Your task to perform on an android device: turn off location history Image 0: 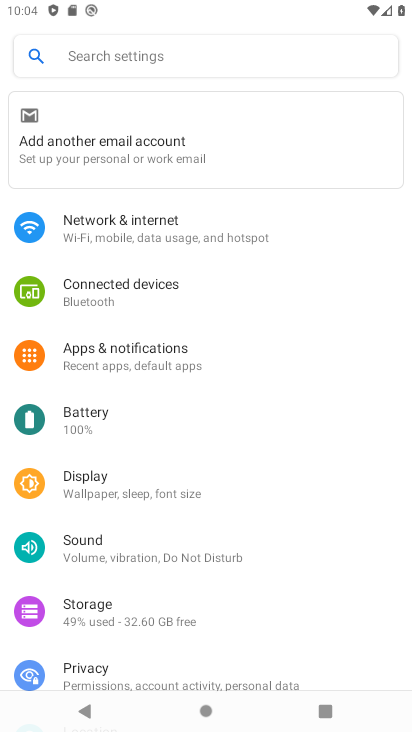
Step 0: drag from (129, 632) to (133, 319)
Your task to perform on an android device: turn off location history Image 1: 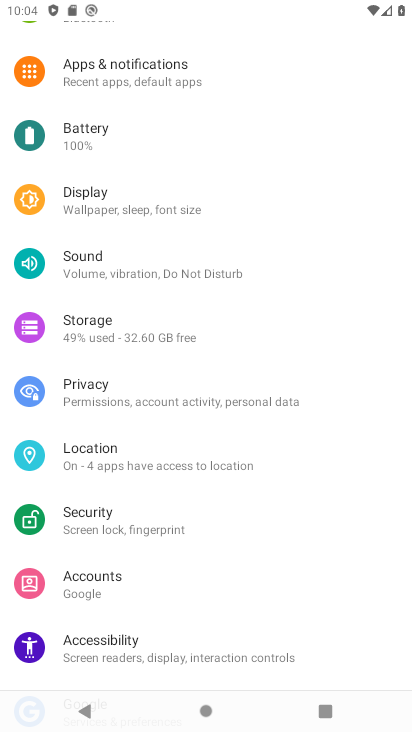
Step 1: click (92, 451)
Your task to perform on an android device: turn off location history Image 2: 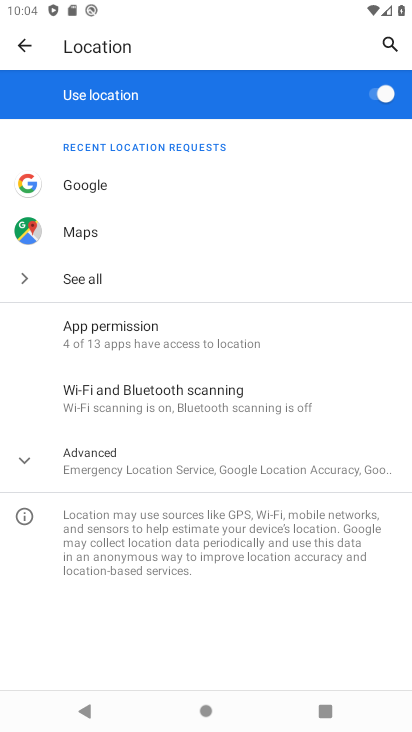
Step 2: click (100, 465)
Your task to perform on an android device: turn off location history Image 3: 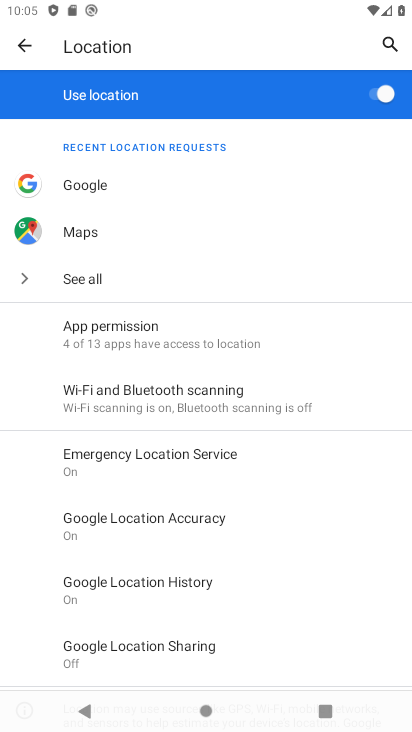
Step 3: click (181, 579)
Your task to perform on an android device: turn off location history Image 4: 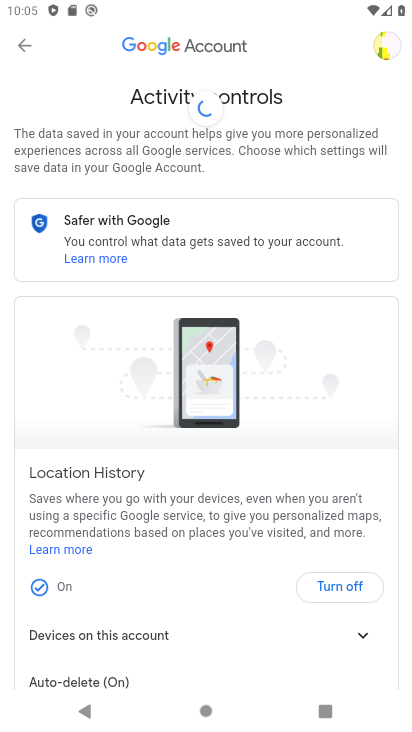
Step 4: click (344, 590)
Your task to perform on an android device: turn off location history Image 5: 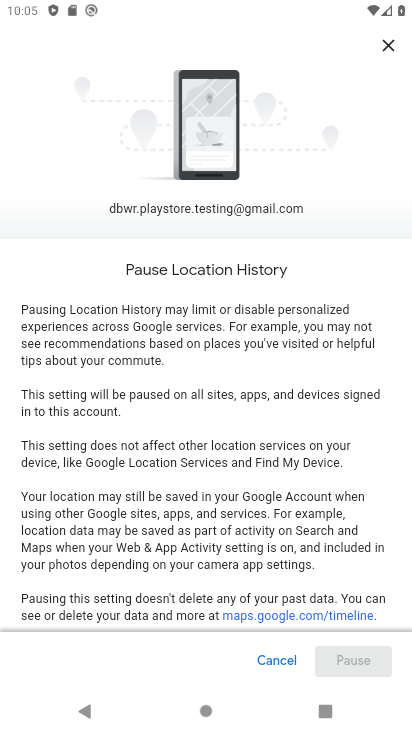
Step 5: drag from (216, 589) to (210, 189)
Your task to perform on an android device: turn off location history Image 6: 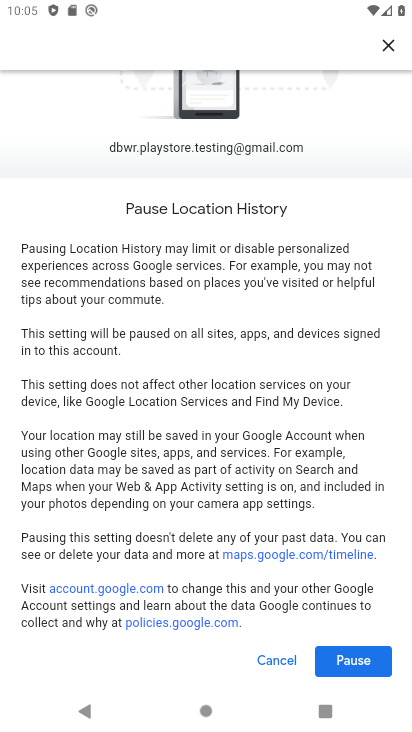
Step 6: click (356, 665)
Your task to perform on an android device: turn off location history Image 7: 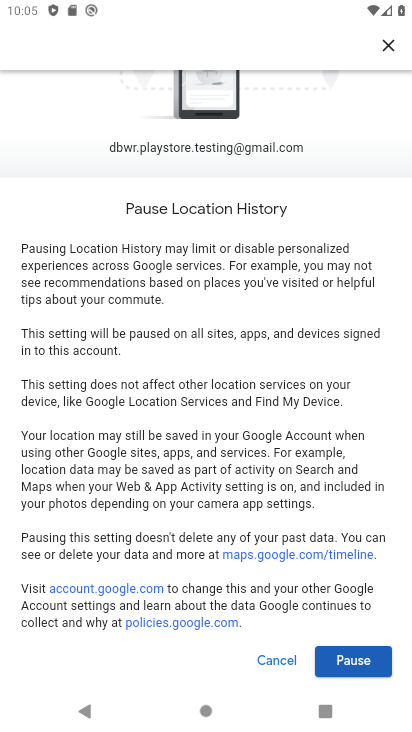
Step 7: click (356, 665)
Your task to perform on an android device: turn off location history Image 8: 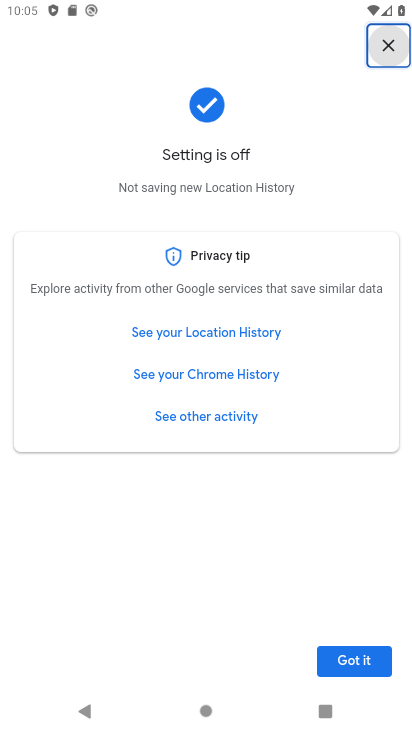
Step 8: click (356, 665)
Your task to perform on an android device: turn off location history Image 9: 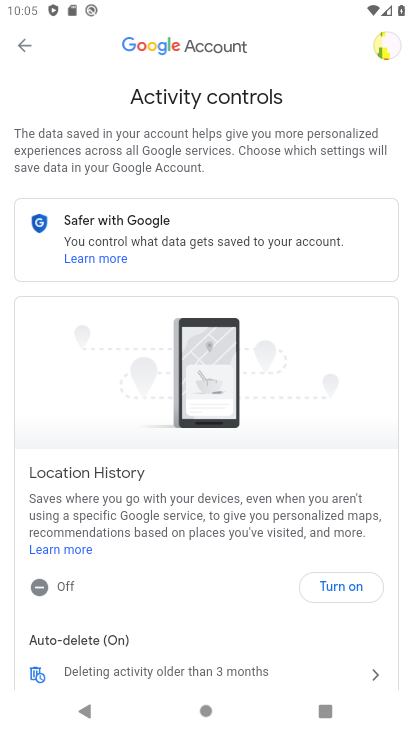
Step 9: task complete